Your task to perform on an android device: turn on wifi Image 0: 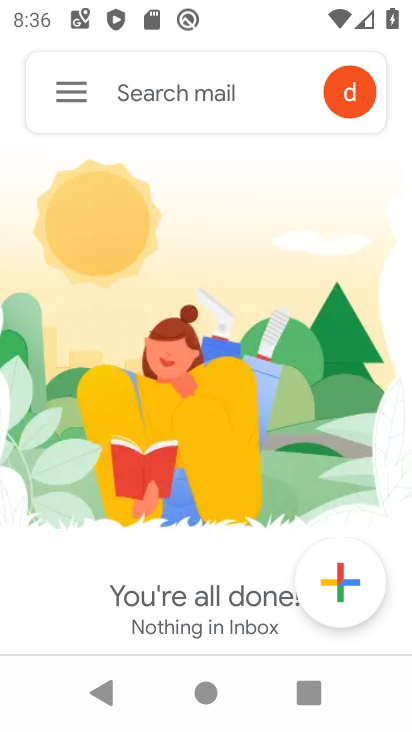
Step 0: press home button
Your task to perform on an android device: turn on wifi Image 1: 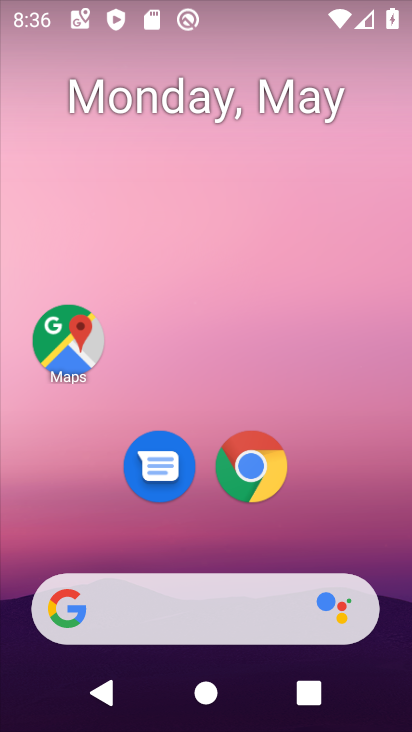
Step 1: drag from (237, 650) to (159, 6)
Your task to perform on an android device: turn on wifi Image 2: 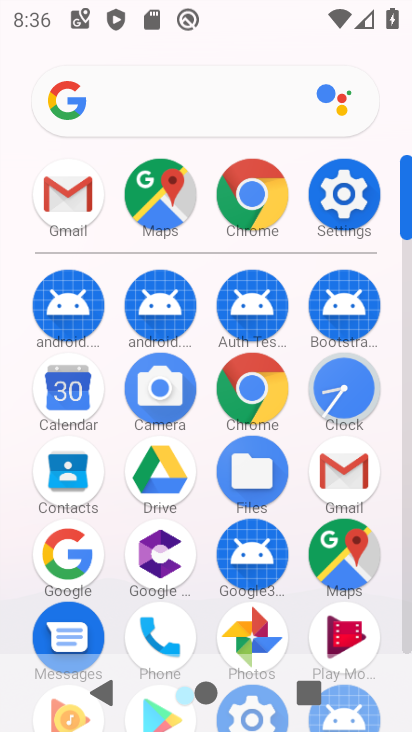
Step 2: click (331, 213)
Your task to perform on an android device: turn on wifi Image 3: 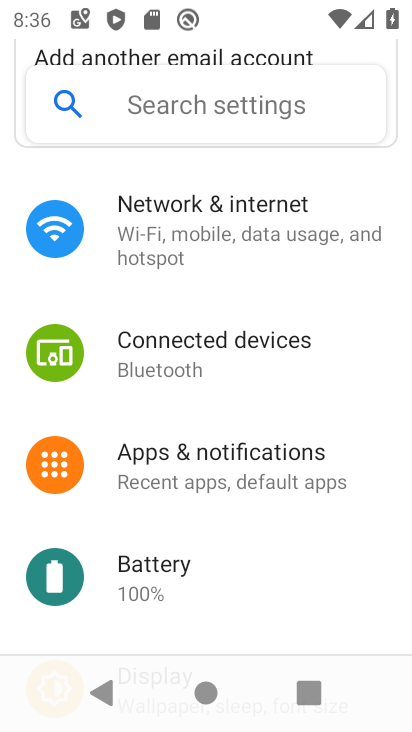
Step 3: click (209, 201)
Your task to perform on an android device: turn on wifi Image 4: 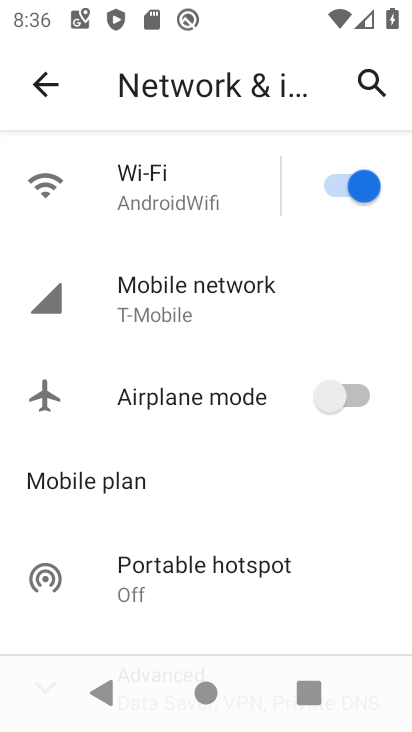
Step 4: click (190, 185)
Your task to perform on an android device: turn on wifi Image 5: 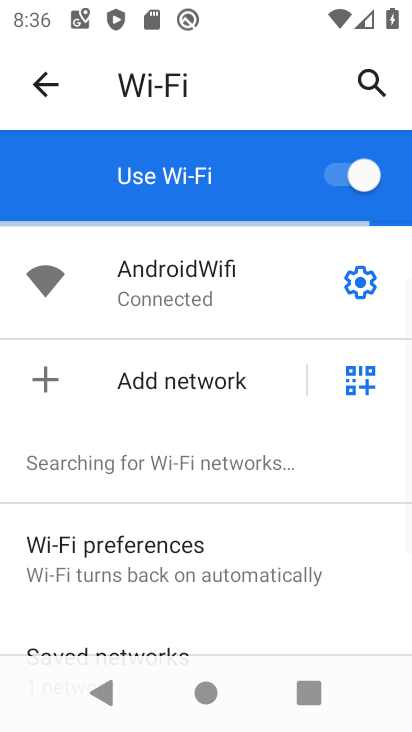
Step 5: click (354, 168)
Your task to perform on an android device: turn on wifi Image 6: 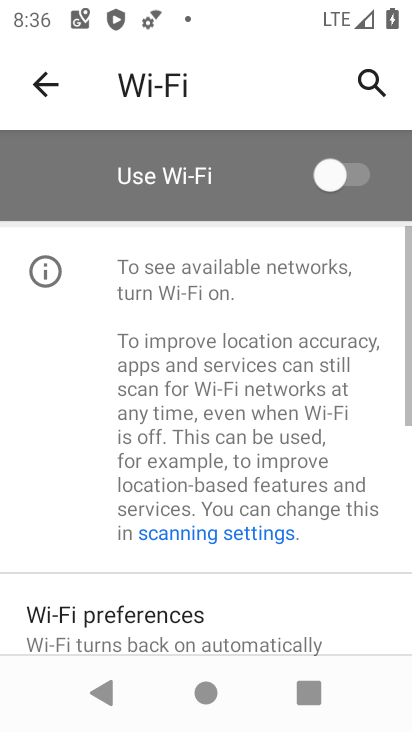
Step 6: click (354, 168)
Your task to perform on an android device: turn on wifi Image 7: 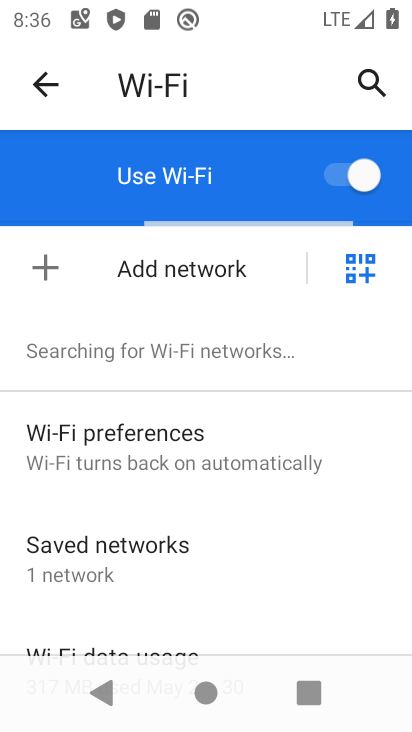
Step 7: task complete